Your task to perform on an android device: Go to Google Image 0: 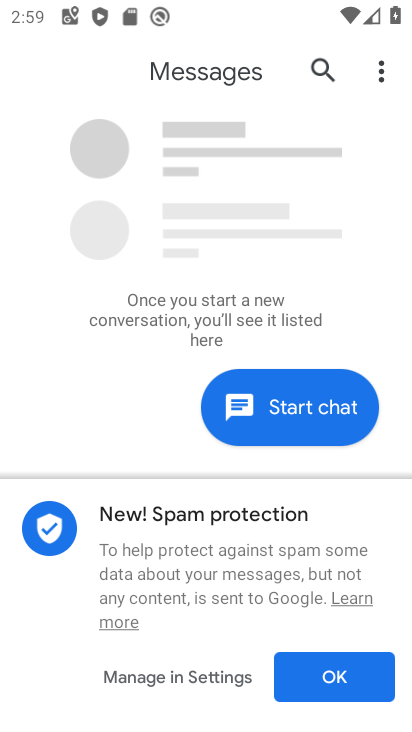
Step 0: press home button
Your task to perform on an android device: Go to Google Image 1: 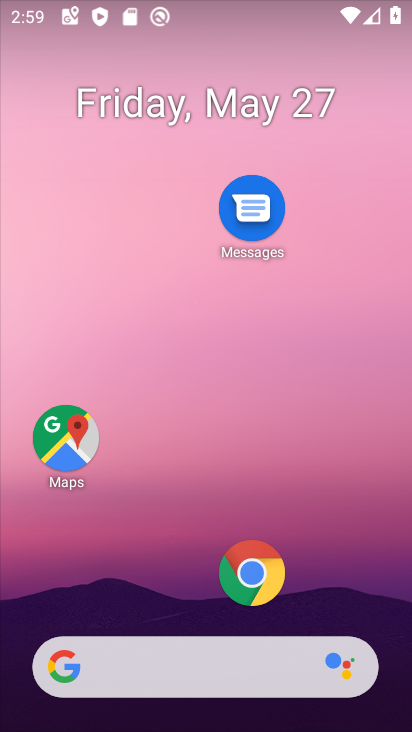
Step 1: drag from (187, 562) to (161, 154)
Your task to perform on an android device: Go to Google Image 2: 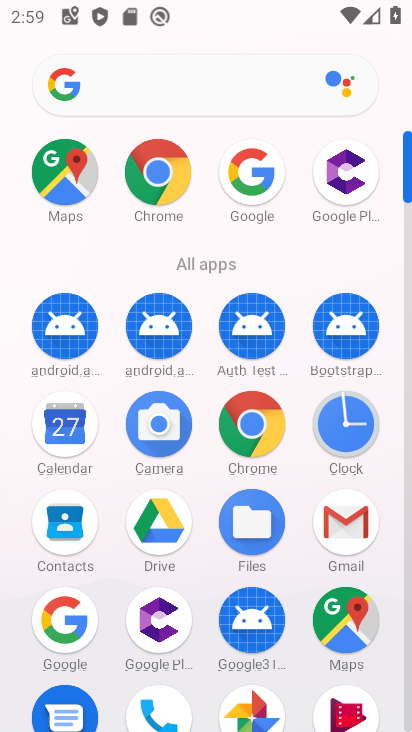
Step 2: click (85, 623)
Your task to perform on an android device: Go to Google Image 3: 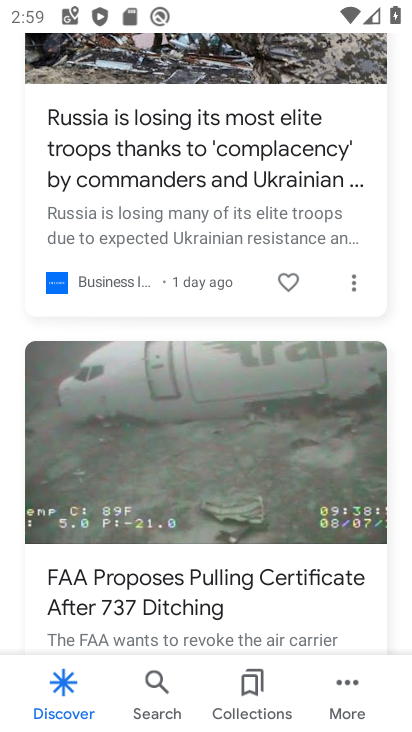
Step 3: task complete